Your task to perform on an android device: What is the recent news? Image 0: 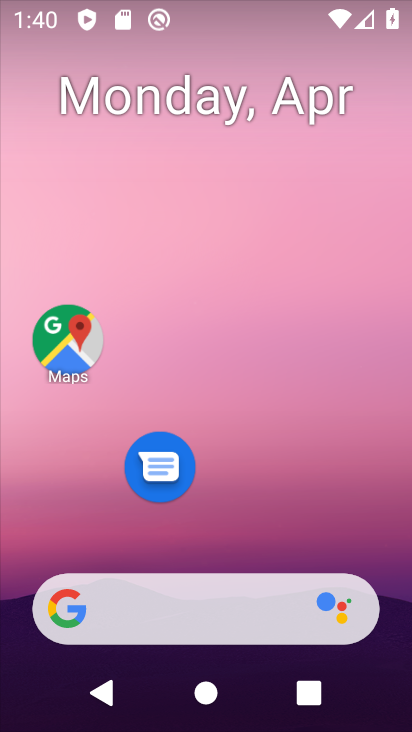
Step 0: drag from (290, 110) to (290, 34)
Your task to perform on an android device: What is the recent news? Image 1: 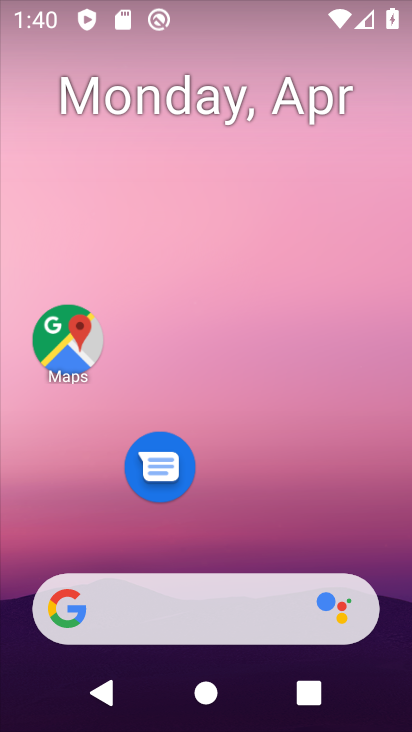
Step 1: drag from (304, 521) to (279, 29)
Your task to perform on an android device: What is the recent news? Image 2: 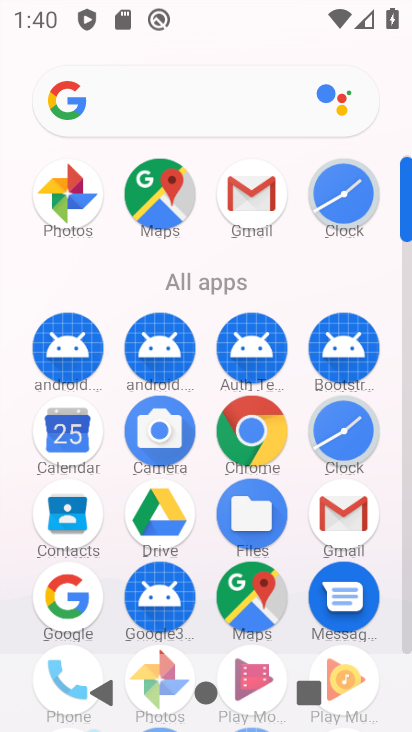
Step 2: click (180, 99)
Your task to perform on an android device: What is the recent news? Image 3: 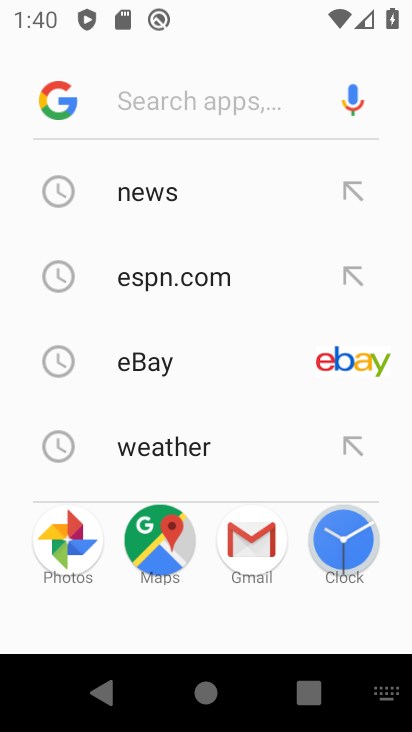
Step 3: type "whar is the recent news"
Your task to perform on an android device: What is the recent news? Image 4: 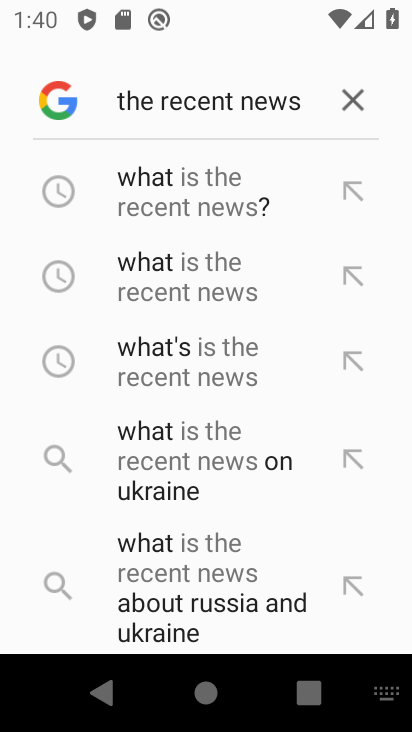
Step 4: click (202, 203)
Your task to perform on an android device: What is the recent news? Image 5: 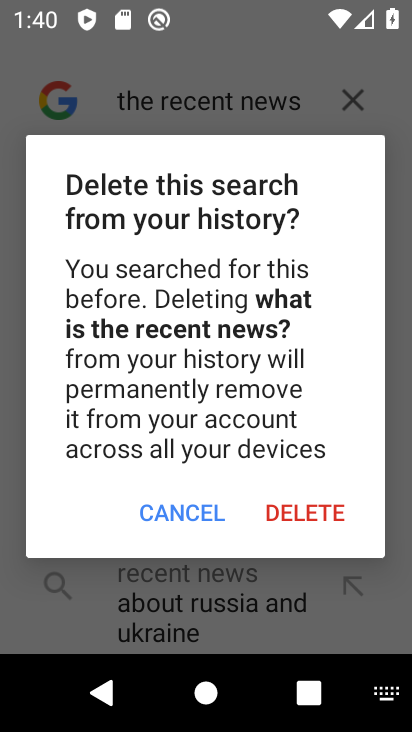
Step 5: click (178, 518)
Your task to perform on an android device: What is the recent news? Image 6: 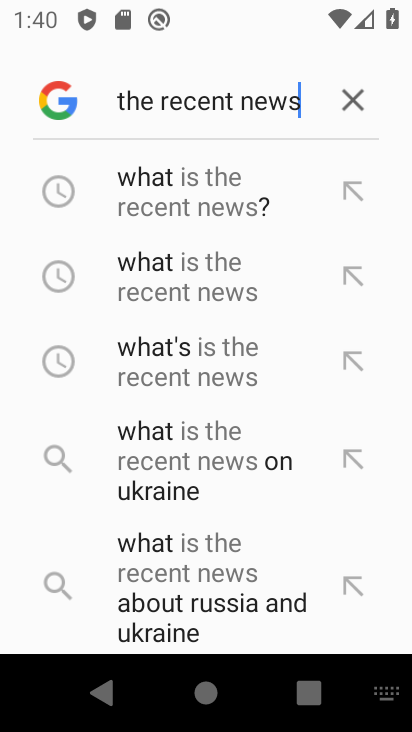
Step 6: click (162, 189)
Your task to perform on an android device: What is the recent news? Image 7: 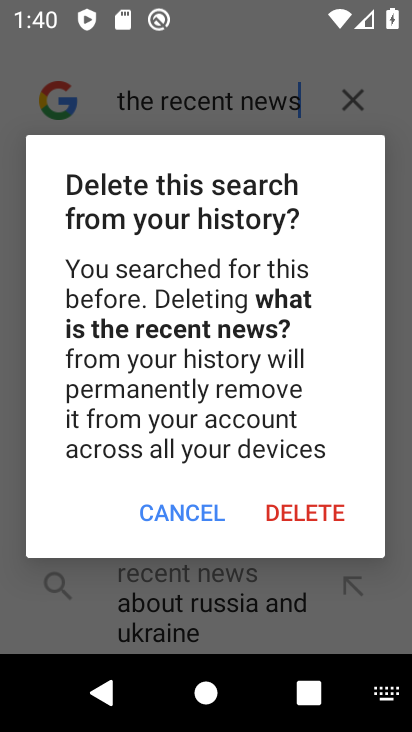
Step 7: click (223, 520)
Your task to perform on an android device: What is the recent news? Image 8: 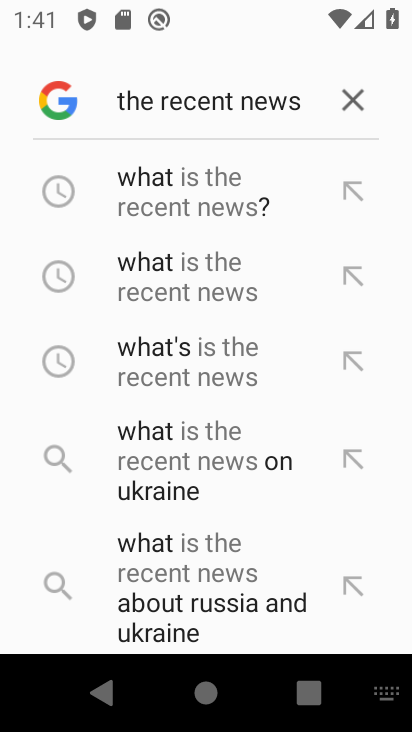
Step 8: click (154, 202)
Your task to perform on an android device: What is the recent news? Image 9: 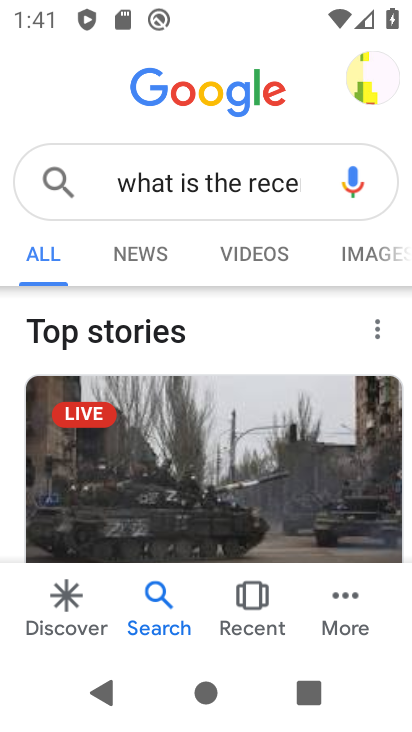
Step 9: click (154, 252)
Your task to perform on an android device: What is the recent news? Image 10: 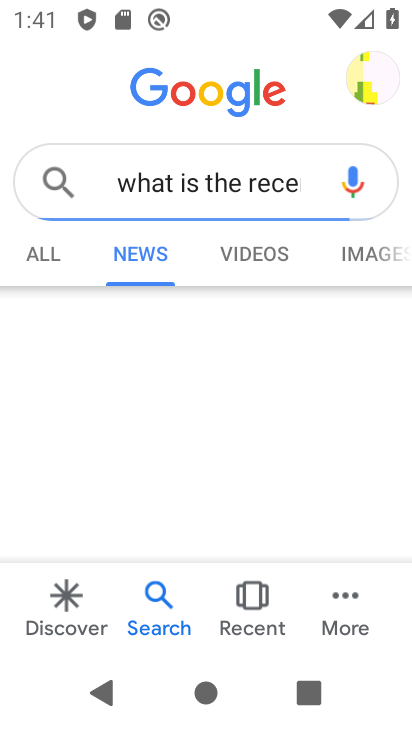
Step 10: task complete